Your task to perform on an android device: Do I have any events this weekend? Image 0: 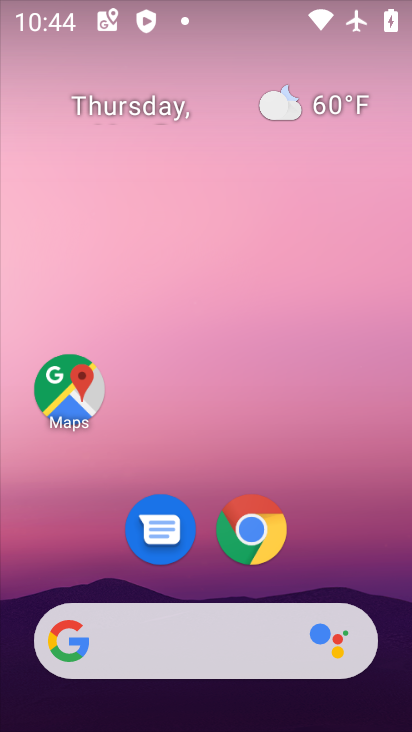
Step 0: drag from (311, 448) to (408, 431)
Your task to perform on an android device: Do I have any events this weekend? Image 1: 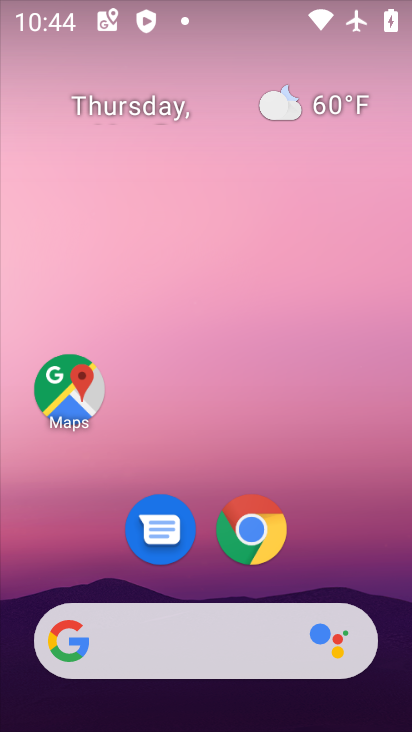
Step 1: drag from (317, 529) to (138, 0)
Your task to perform on an android device: Do I have any events this weekend? Image 2: 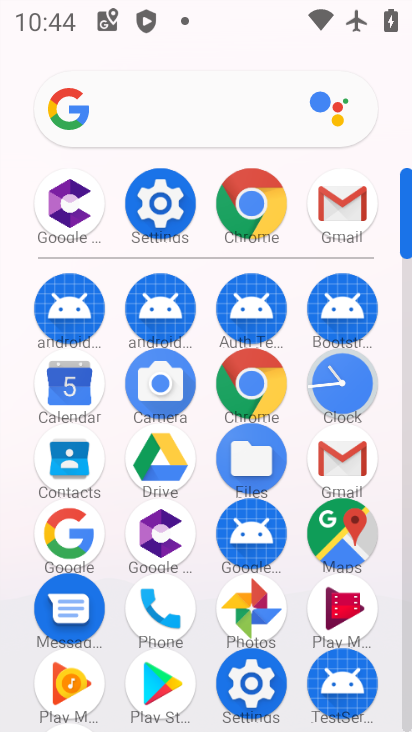
Step 2: click (66, 369)
Your task to perform on an android device: Do I have any events this weekend? Image 3: 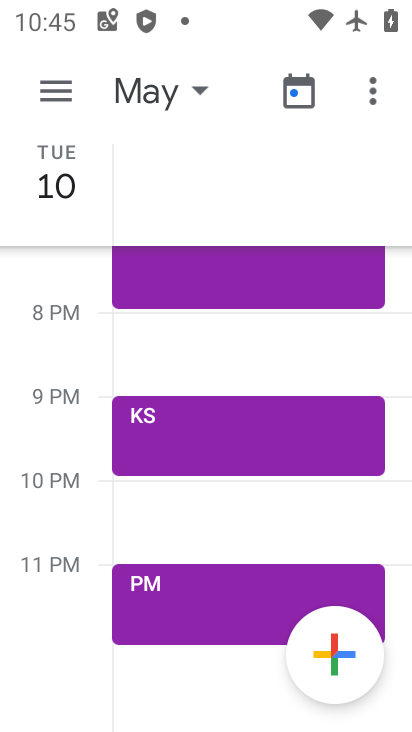
Step 3: click (60, 98)
Your task to perform on an android device: Do I have any events this weekend? Image 4: 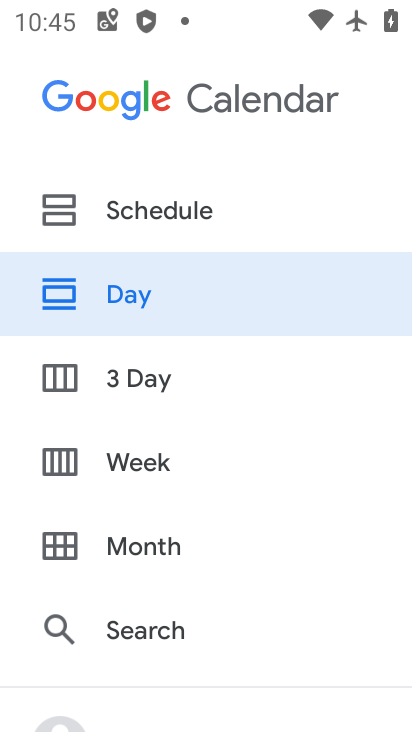
Step 4: click (150, 209)
Your task to perform on an android device: Do I have any events this weekend? Image 5: 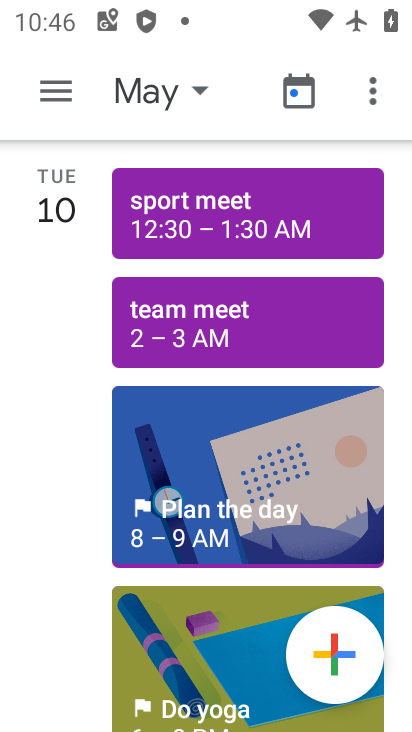
Step 5: click (151, 223)
Your task to perform on an android device: Do I have any events this weekend? Image 6: 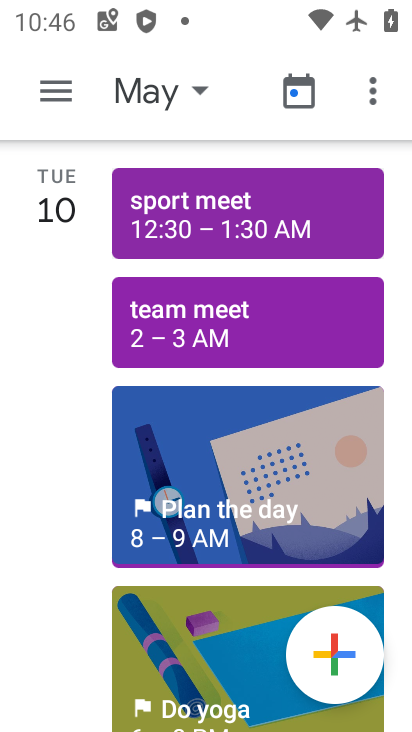
Step 6: click (151, 223)
Your task to perform on an android device: Do I have any events this weekend? Image 7: 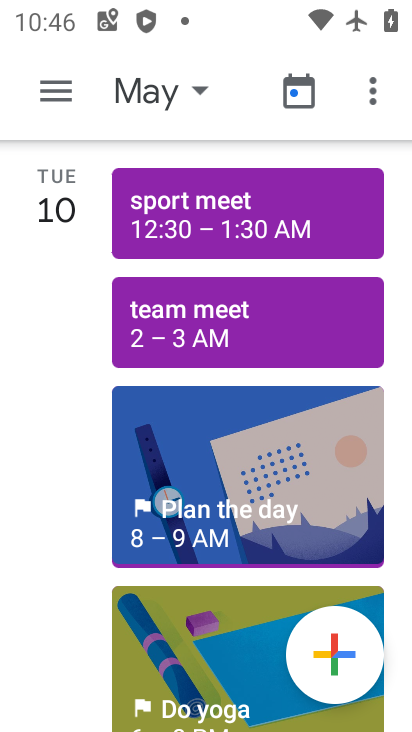
Step 7: click (151, 223)
Your task to perform on an android device: Do I have any events this weekend? Image 8: 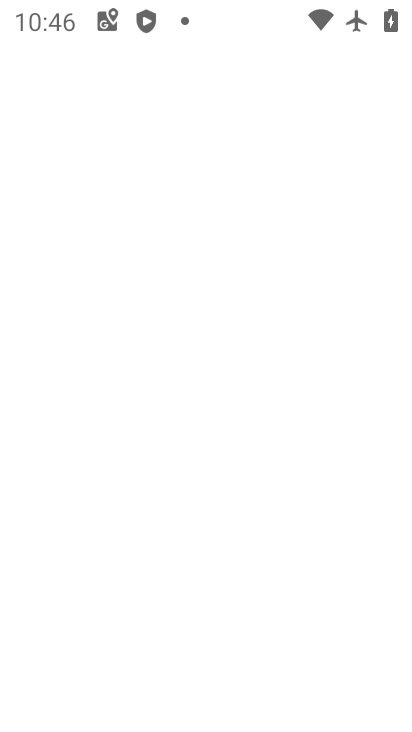
Step 8: click (151, 223)
Your task to perform on an android device: Do I have any events this weekend? Image 9: 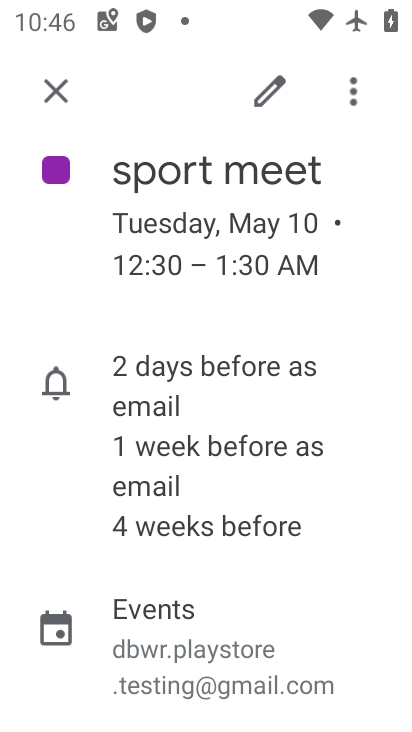
Step 9: click (50, 75)
Your task to perform on an android device: Do I have any events this weekend? Image 10: 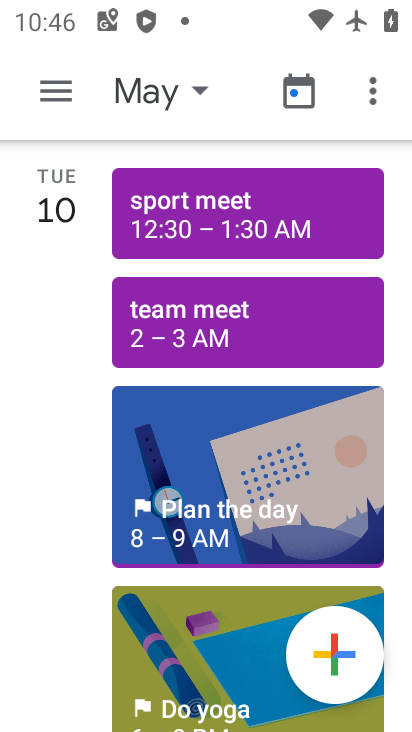
Step 10: task complete